Your task to perform on an android device: Search for sushi restaurants on Maps Image 0: 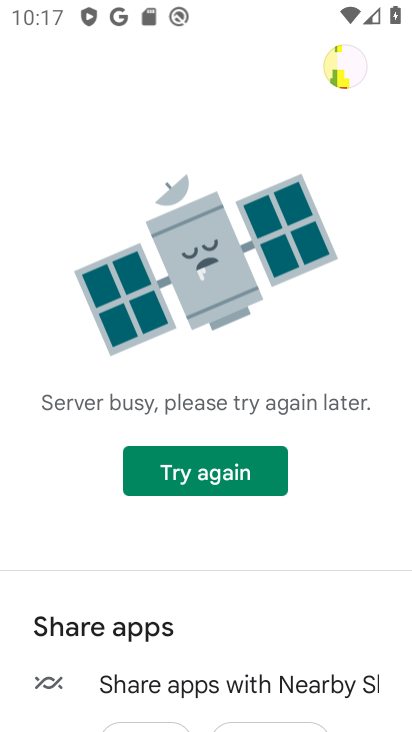
Step 0: press home button
Your task to perform on an android device: Search for sushi restaurants on Maps Image 1: 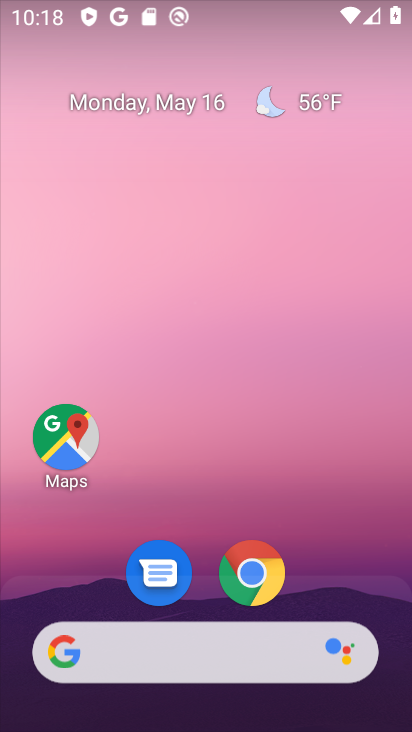
Step 1: click (52, 441)
Your task to perform on an android device: Search for sushi restaurants on Maps Image 2: 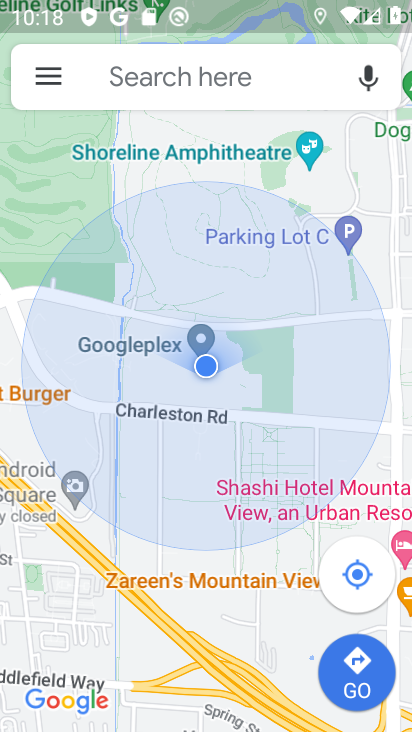
Step 2: click (235, 87)
Your task to perform on an android device: Search for sushi restaurants on Maps Image 3: 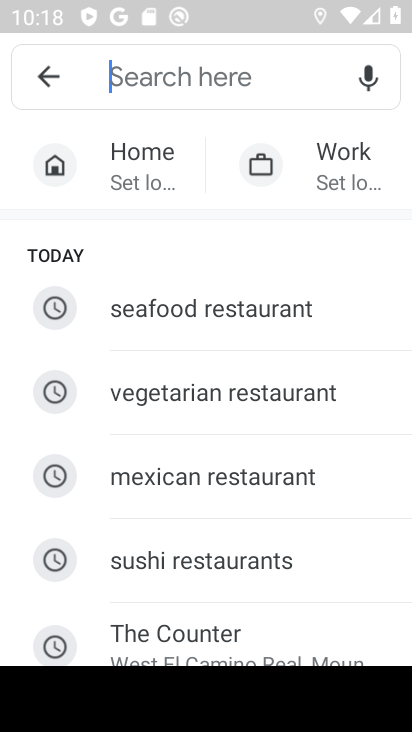
Step 3: click (258, 561)
Your task to perform on an android device: Search for sushi restaurants on Maps Image 4: 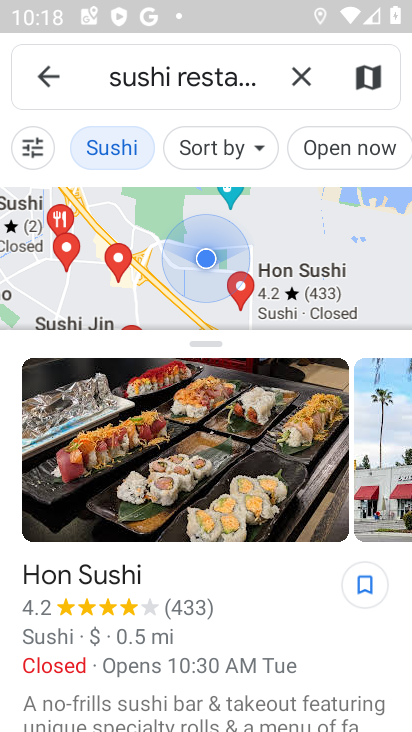
Step 4: task complete